Your task to perform on an android device: Show me the alarms in the clock app Image 0: 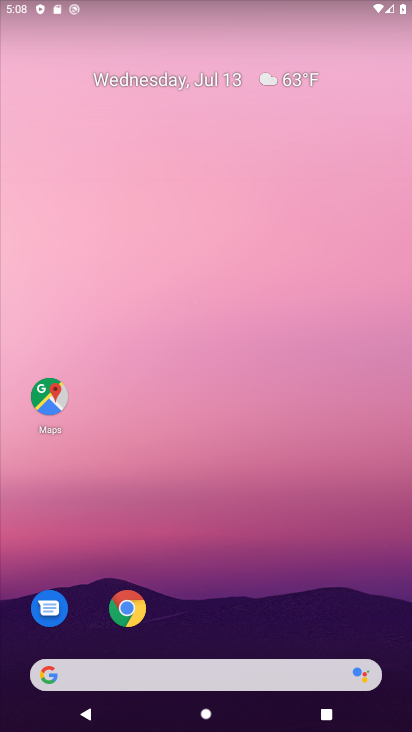
Step 0: drag from (284, 571) to (256, 95)
Your task to perform on an android device: Show me the alarms in the clock app Image 1: 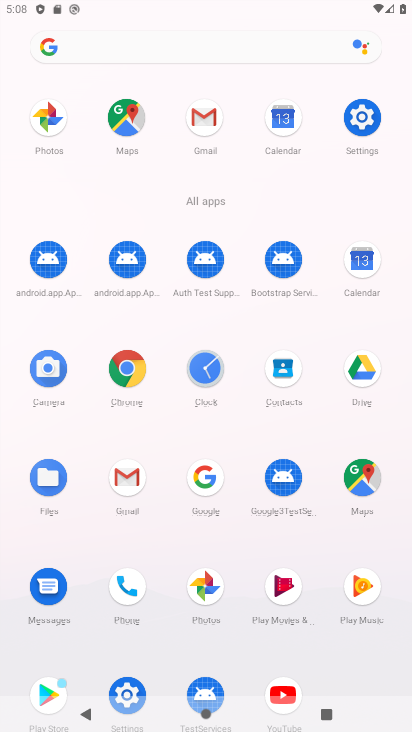
Step 1: click (202, 368)
Your task to perform on an android device: Show me the alarms in the clock app Image 2: 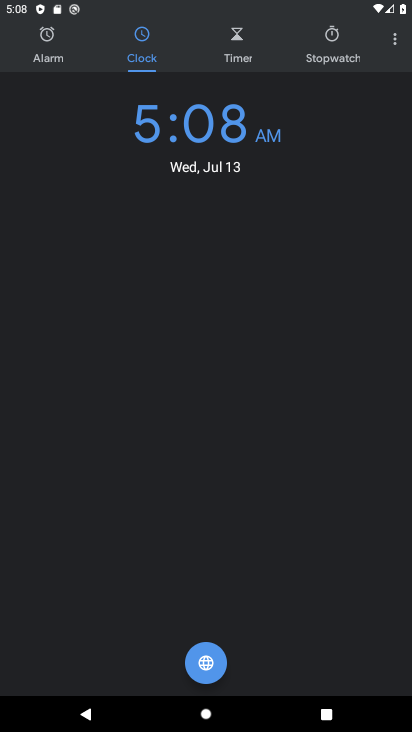
Step 2: click (62, 60)
Your task to perform on an android device: Show me the alarms in the clock app Image 3: 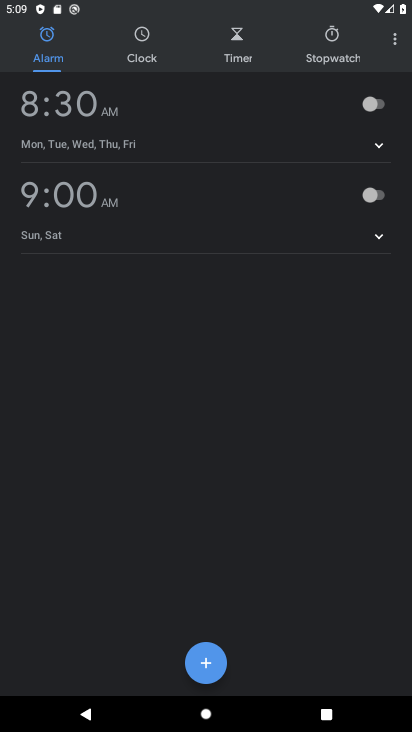
Step 3: click (394, 39)
Your task to perform on an android device: Show me the alarms in the clock app Image 4: 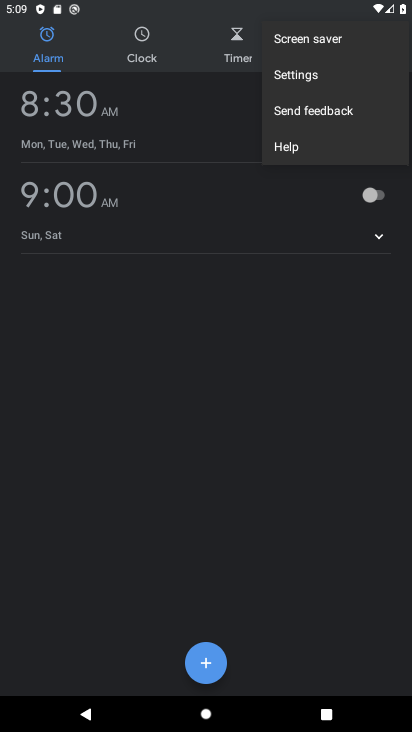
Step 4: task complete